Your task to perform on an android device: see sites visited before in the chrome app Image 0: 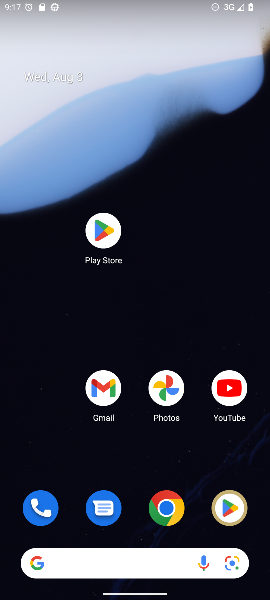
Step 0: drag from (161, 391) to (164, 26)
Your task to perform on an android device: see sites visited before in the chrome app Image 1: 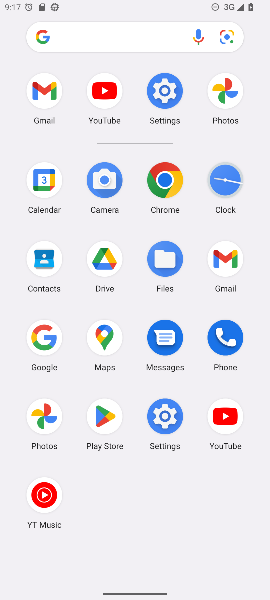
Step 1: click (162, 186)
Your task to perform on an android device: see sites visited before in the chrome app Image 2: 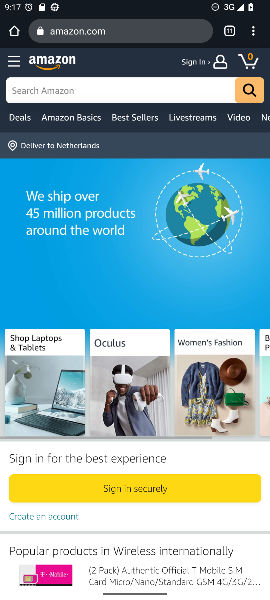
Step 2: click (252, 26)
Your task to perform on an android device: see sites visited before in the chrome app Image 3: 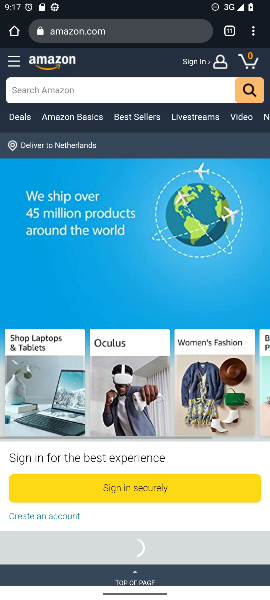
Step 3: task complete